Your task to perform on an android device: change the clock display to digital Image 0: 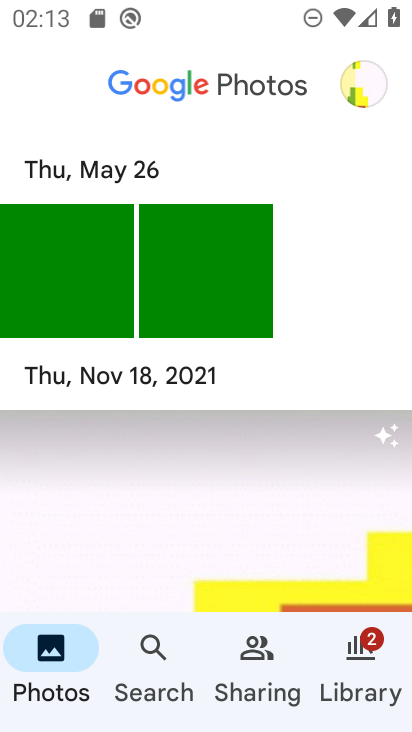
Step 0: press home button
Your task to perform on an android device: change the clock display to digital Image 1: 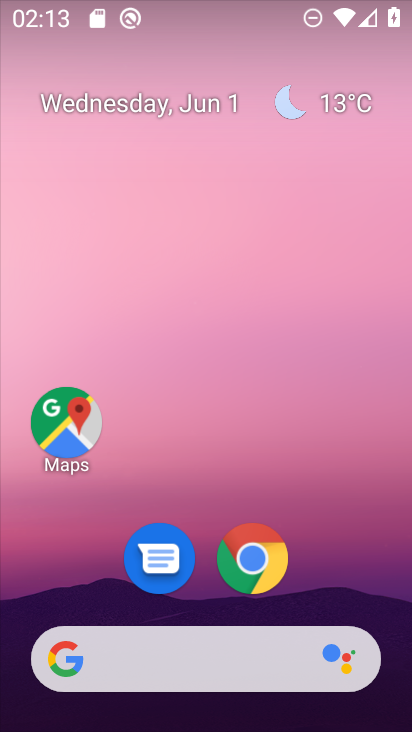
Step 1: drag from (392, 698) to (353, 167)
Your task to perform on an android device: change the clock display to digital Image 2: 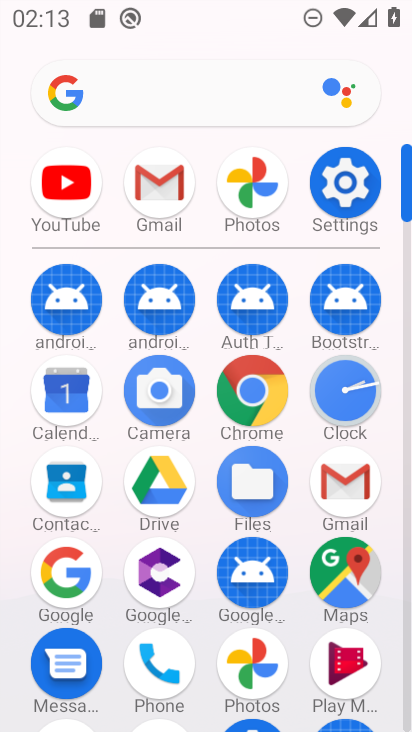
Step 2: click (346, 406)
Your task to perform on an android device: change the clock display to digital Image 3: 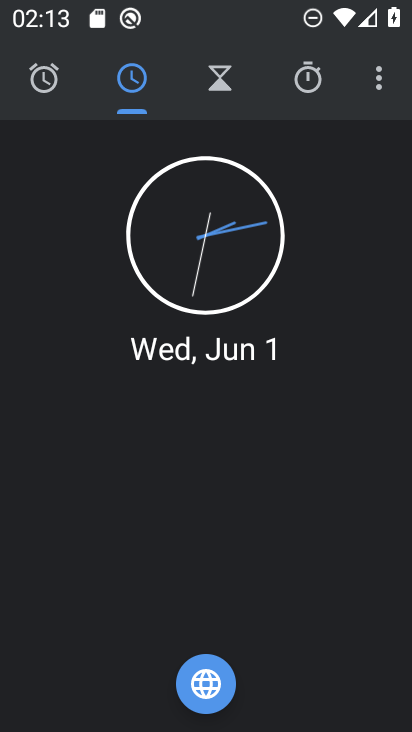
Step 3: click (372, 77)
Your task to perform on an android device: change the clock display to digital Image 4: 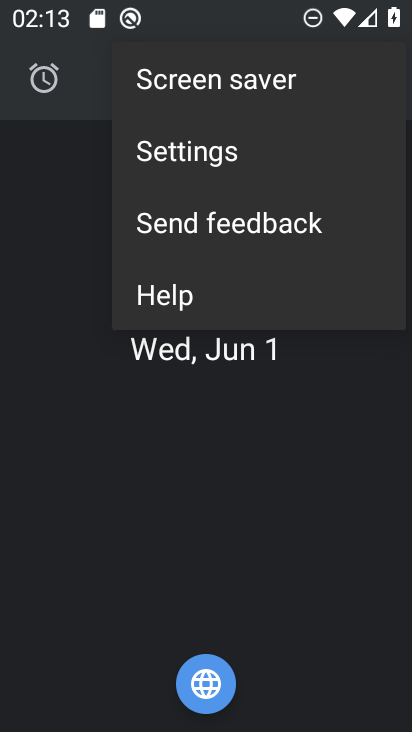
Step 4: click (191, 154)
Your task to perform on an android device: change the clock display to digital Image 5: 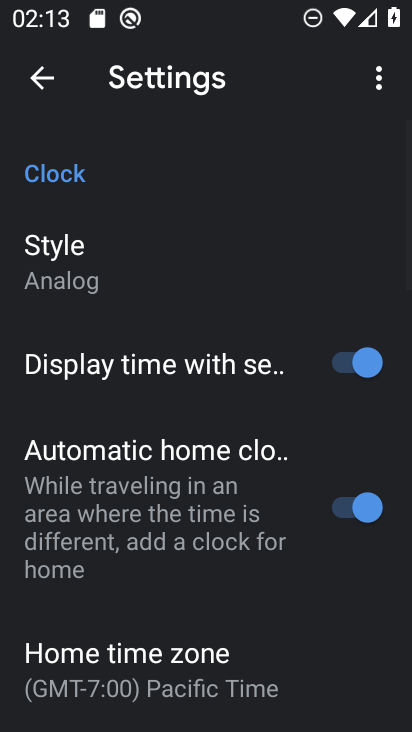
Step 5: click (72, 269)
Your task to perform on an android device: change the clock display to digital Image 6: 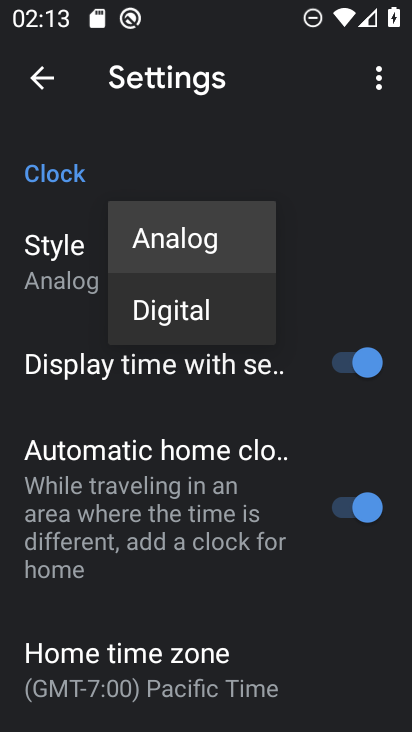
Step 6: click (170, 315)
Your task to perform on an android device: change the clock display to digital Image 7: 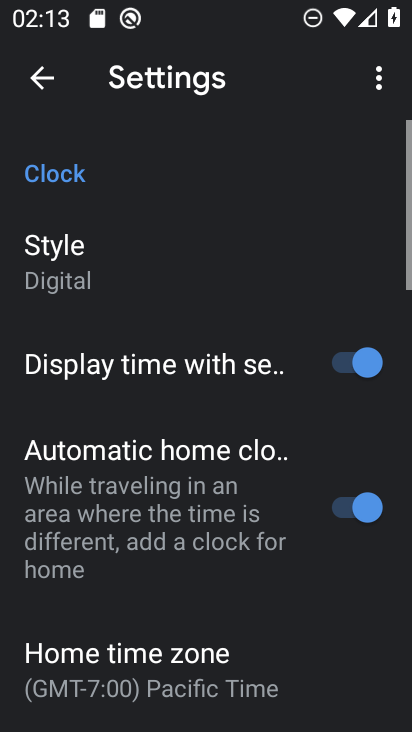
Step 7: task complete